Your task to perform on an android device: Open the Play Movies app and select the watchlist tab. Image 0: 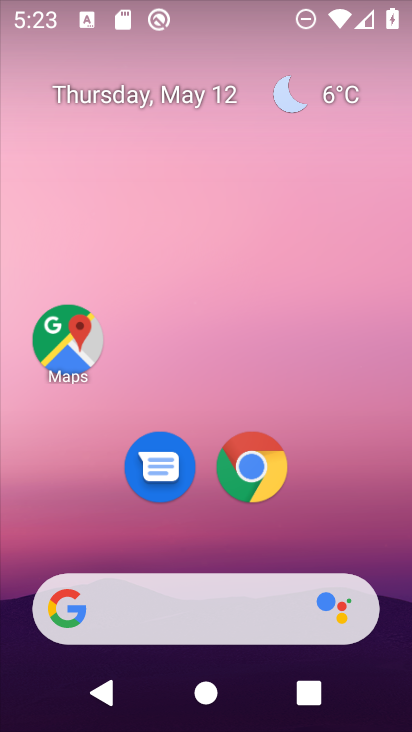
Step 0: drag from (340, 600) to (385, 15)
Your task to perform on an android device: Open the Play Movies app and select the watchlist tab. Image 1: 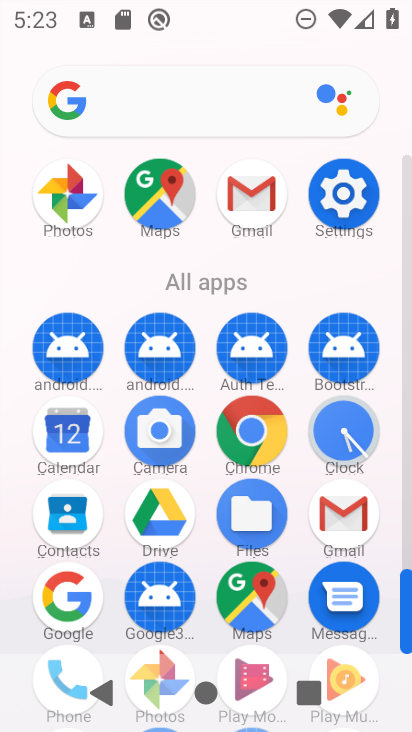
Step 1: drag from (297, 630) to (313, 361)
Your task to perform on an android device: Open the Play Movies app and select the watchlist tab. Image 2: 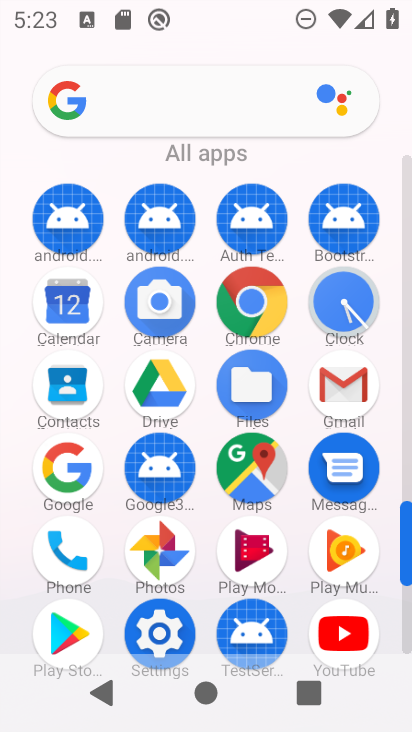
Step 2: click (268, 526)
Your task to perform on an android device: Open the Play Movies app and select the watchlist tab. Image 3: 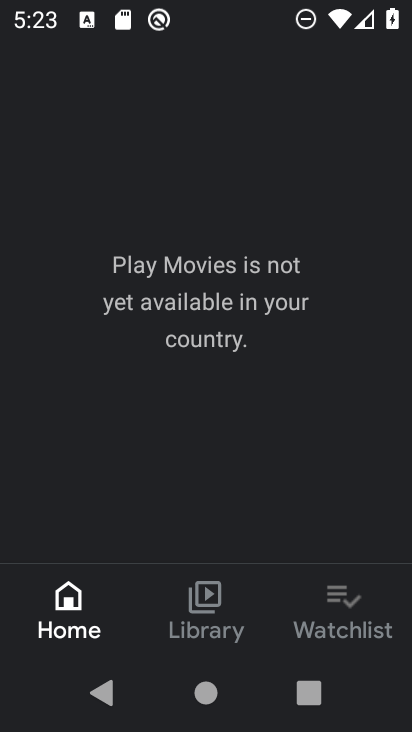
Step 3: click (301, 622)
Your task to perform on an android device: Open the Play Movies app and select the watchlist tab. Image 4: 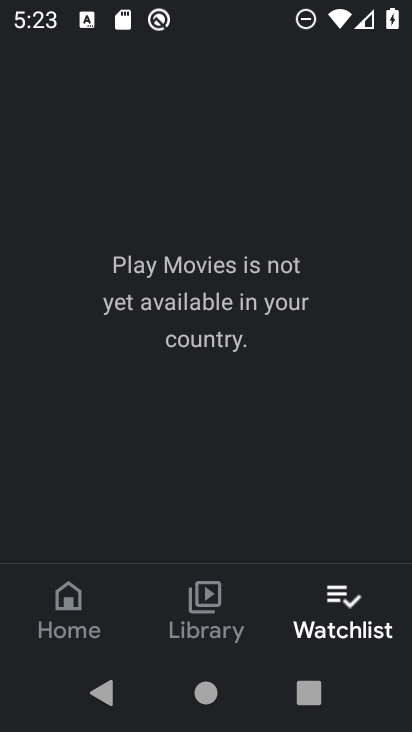
Step 4: task complete